Your task to perform on an android device: manage bookmarks in the chrome app Image 0: 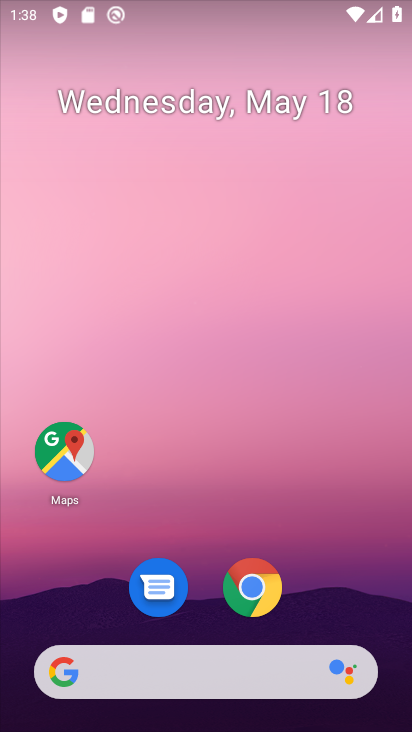
Step 0: click (253, 585)
Your task to perform on an android device: manage bookmarks in the chrome app Image 1: 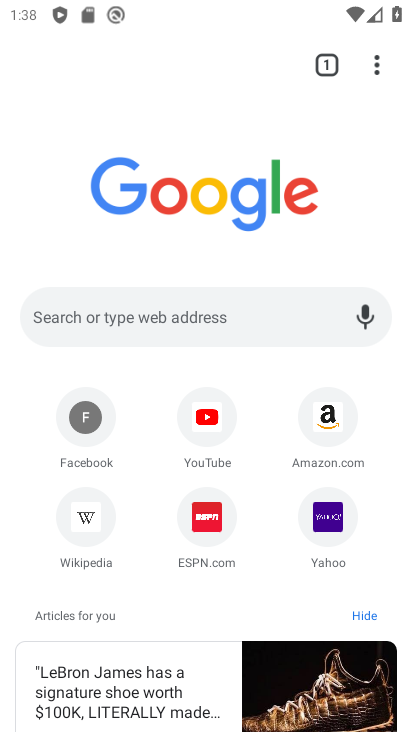
Step 1: click (374, 65)
Your task to perform on an android device: manage bookmarks in the chrome app Image 2: 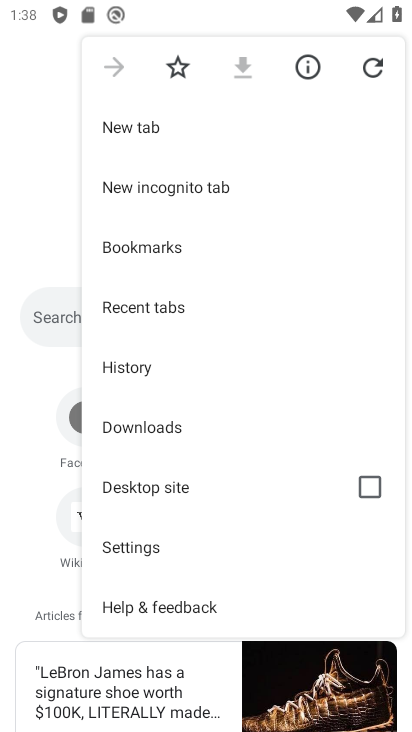
Step 2: click (161, 246)
Your task to perform on an android device: manage bookmarks in the chrome app Image 3: 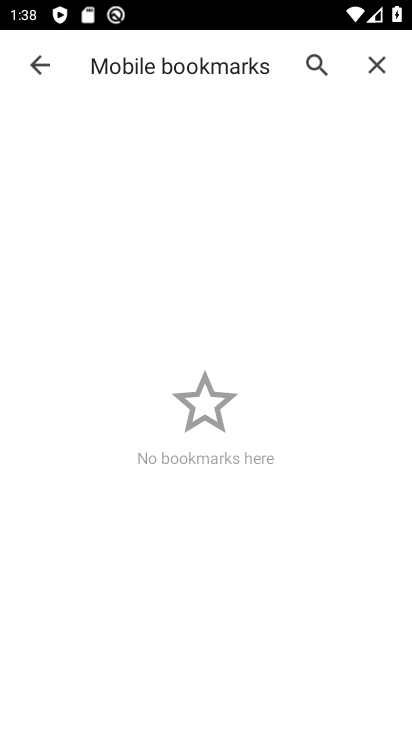
Step 3: task complete